Your task to perform on an android device: open app "Paramount+ | Peak Streaming" (install if not already installed) and enter user name: "fostered@yahoo.com" and password: "strong" Image 0: 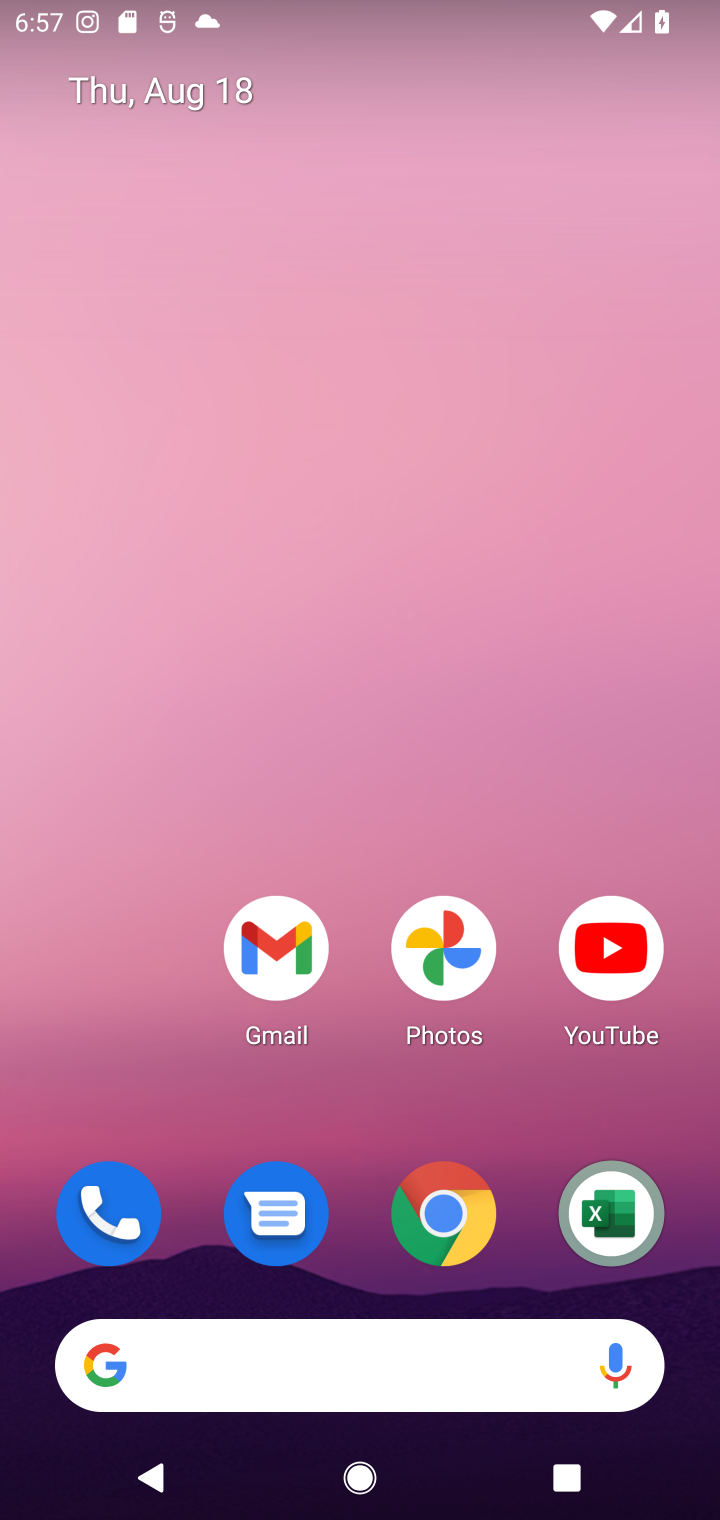
Step 0: drag from (354, 1089) to (413, 0)
Your task to perform on an android device: open app "Paramount+ | Peak Streaming" (install if not already installed) and enter user name: "fostered@yahoo.com" and password: "strong" Image 1: 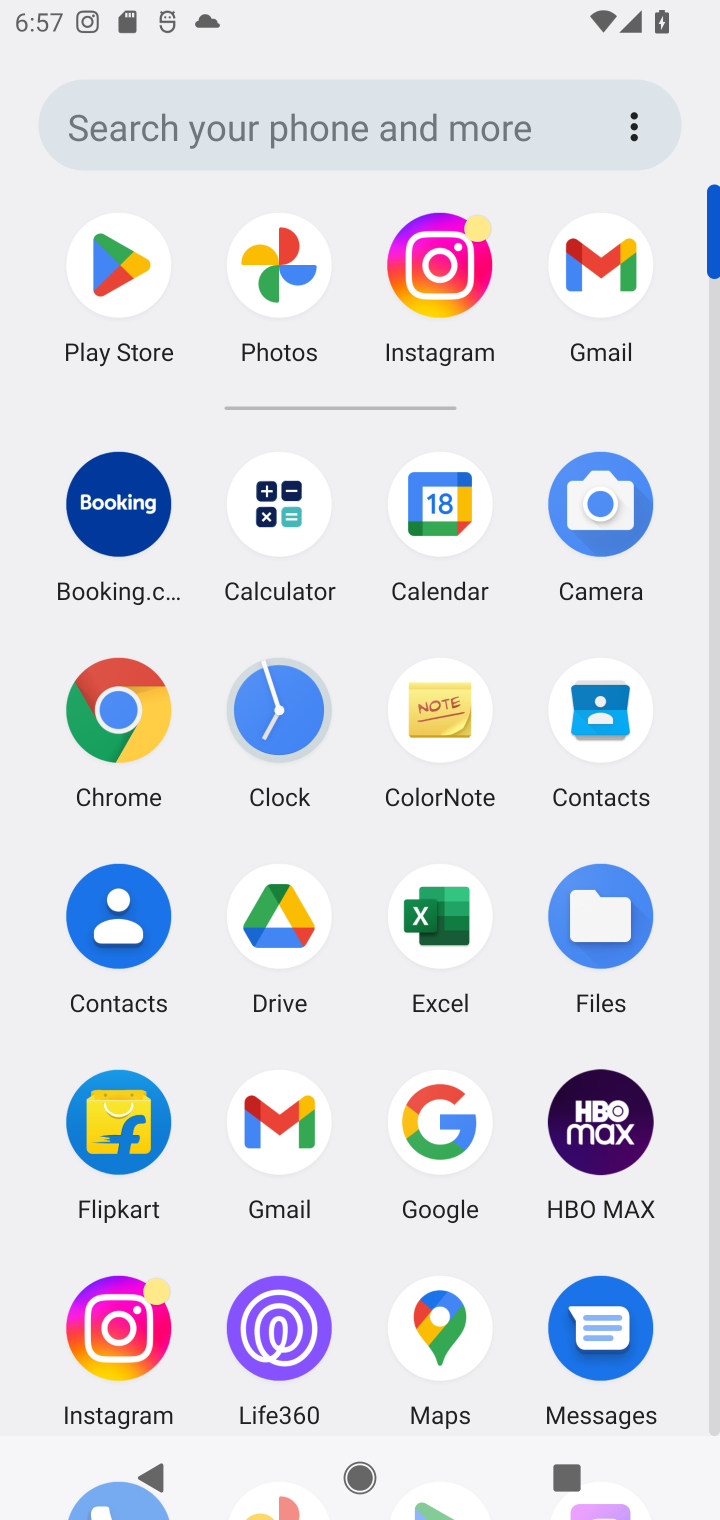
Step 1: click (117, 241)
Your task to perform on an android device: open app "Paramount+ | Peak Streaming" (install if not already installed) and enter user name: "fostered@yahoo.com" and password: "strong" Image 2: 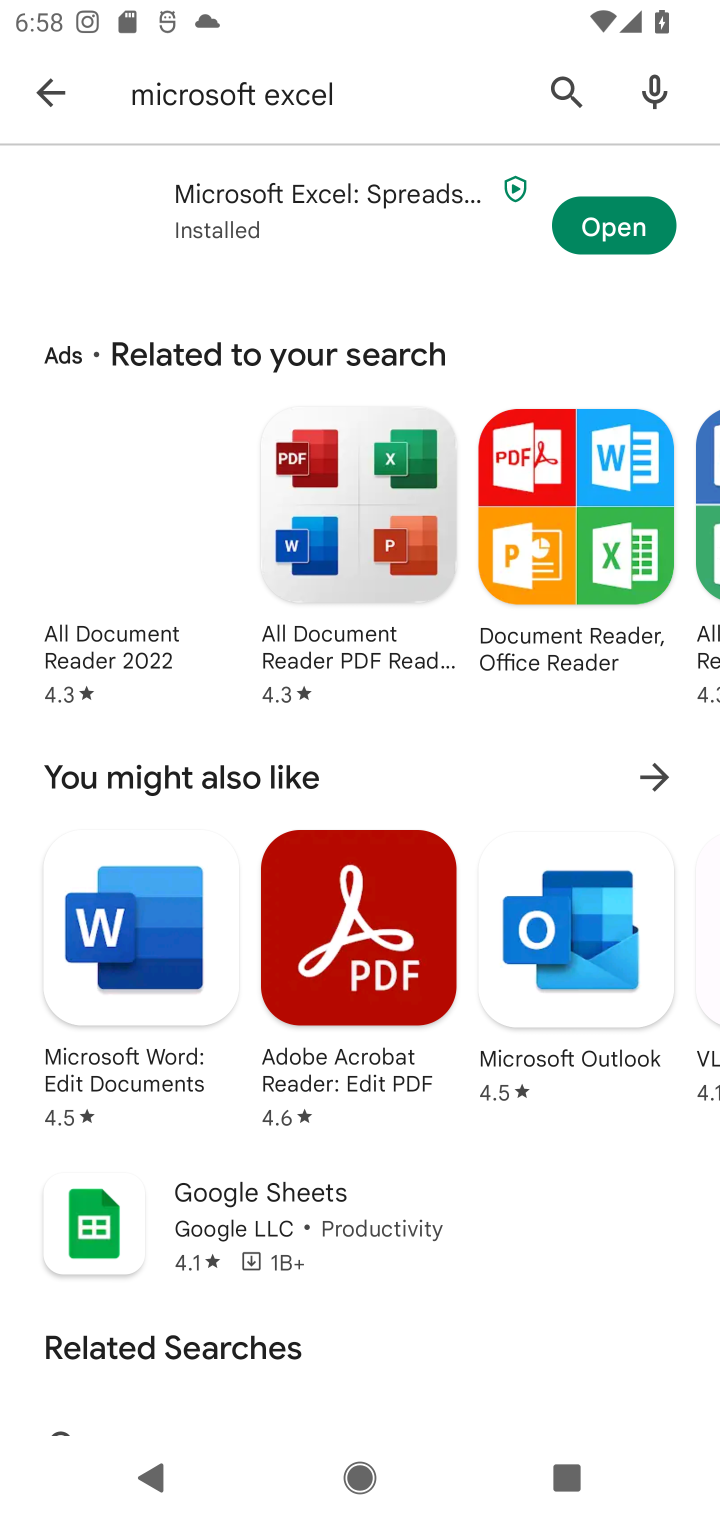
Step 2: click (549, 83)
Your task to perform on an android device: open app "Paramount+ | Peak Streaming" (install if not already installed) and enter user name: "fostered@yahoo.com" and password: "strong" Image 3: 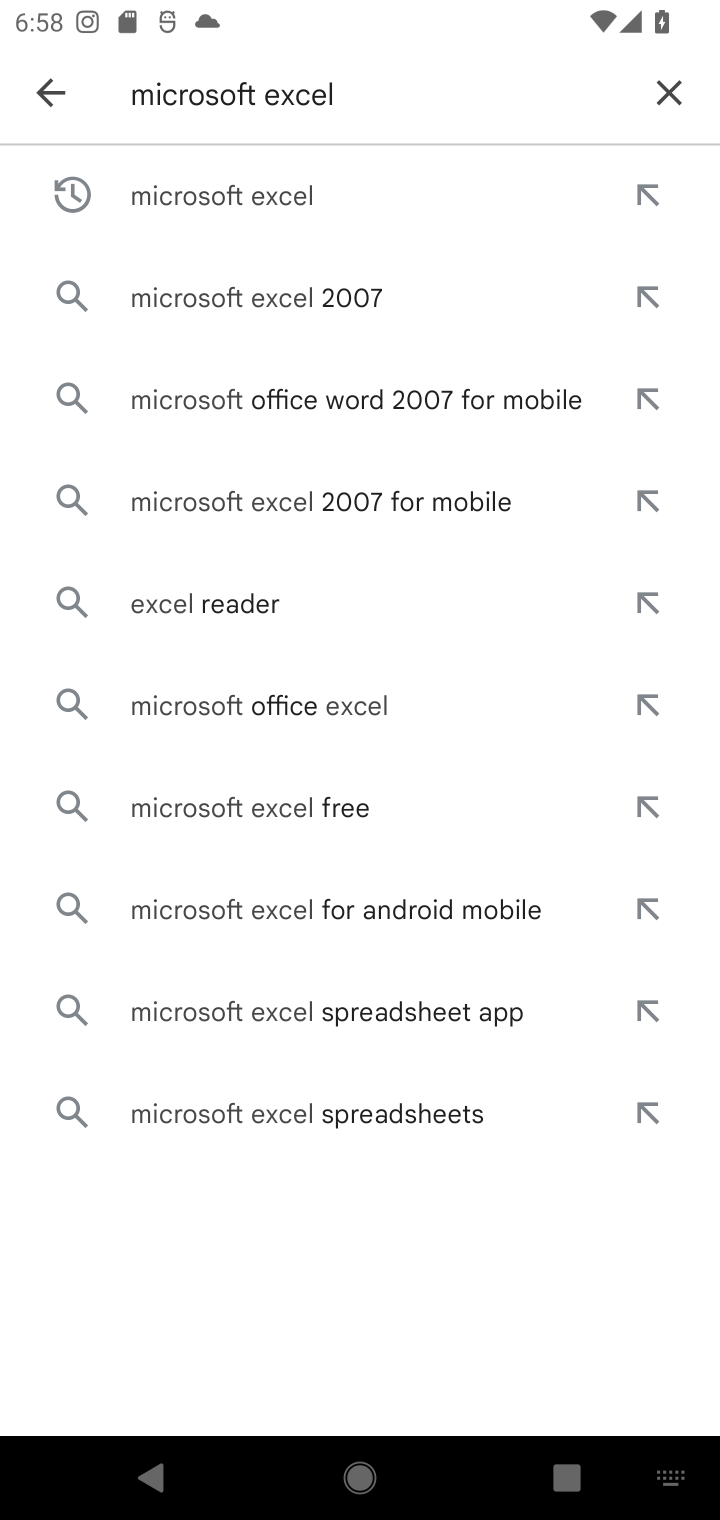
Step 3: click (656, 95)
Your task to perform on an android device: open app "Paramount+ | Peak Streaming" (install if not already installed) and enter user name: "fostered@yahoo.com" and password: "strong" Image 4: 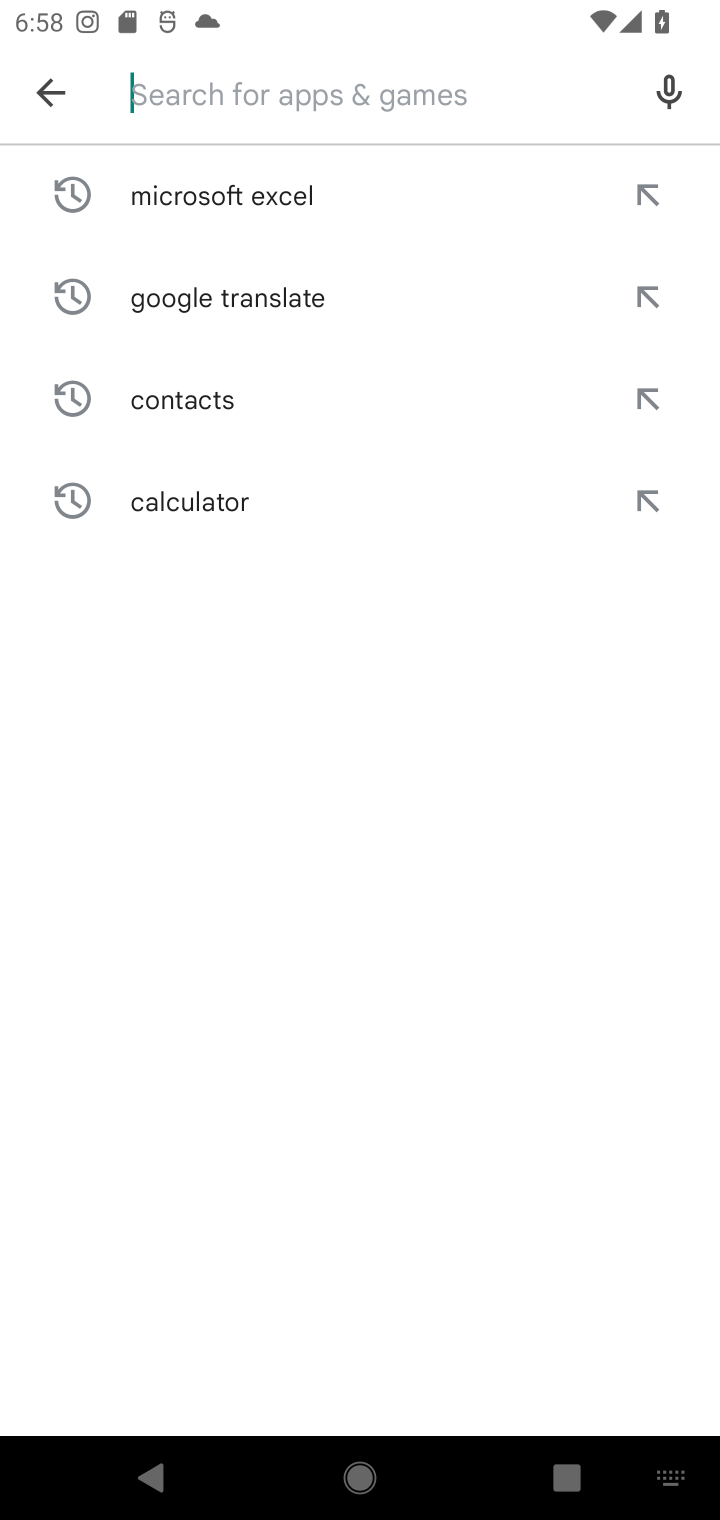
Step 4: type "Paramount+ | Peak Streaming"
Your task to perform on an android device: open app "Paramount+ | Peak Streaming" (install if not already installed) and enter user name: "fostered@yahoo.com" and password: "strong" Image 5: 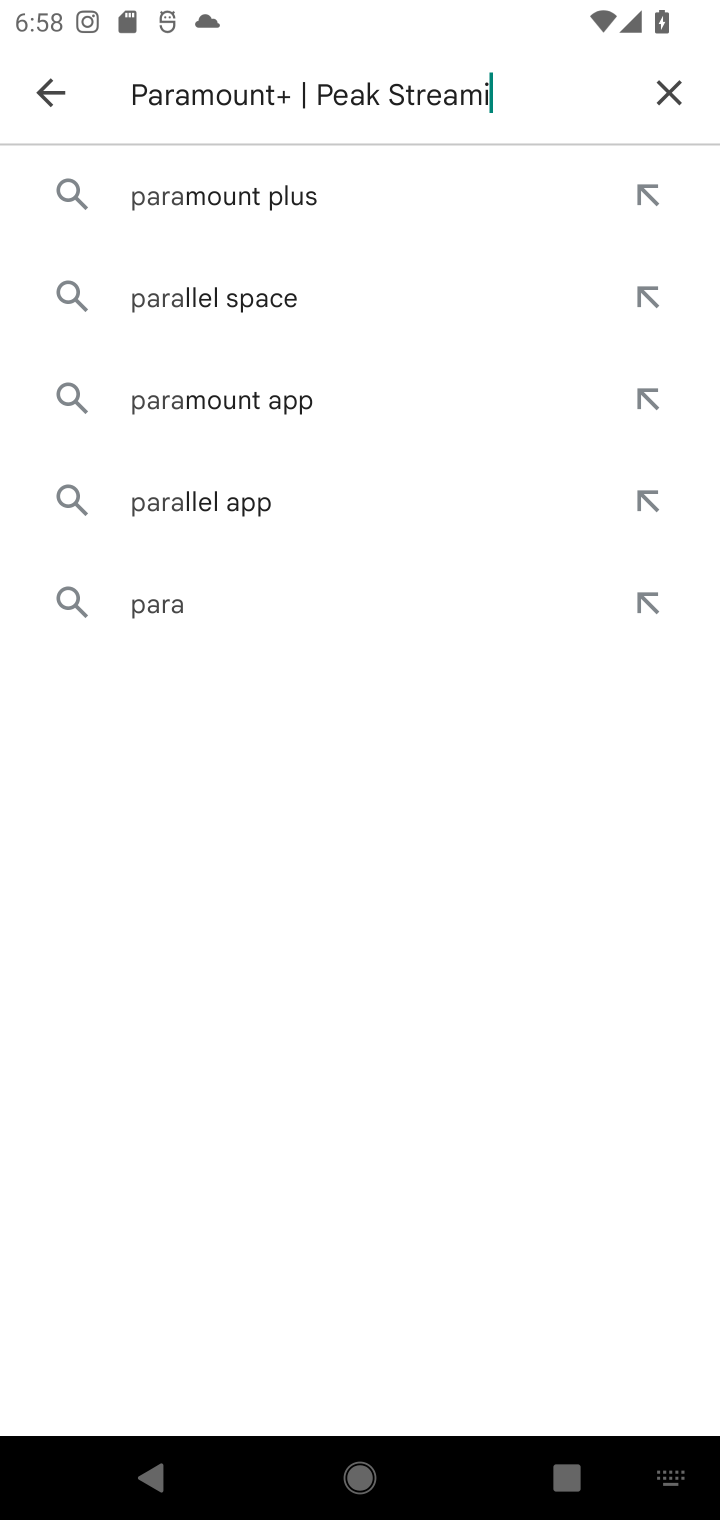
Step 5: type ""
Your task to perform on an android device: open app "Paramount+ | Peak Streaming" (install if not already installed) and enter user name: "fostered@yahoo.com" and password: "strong" Image 6: 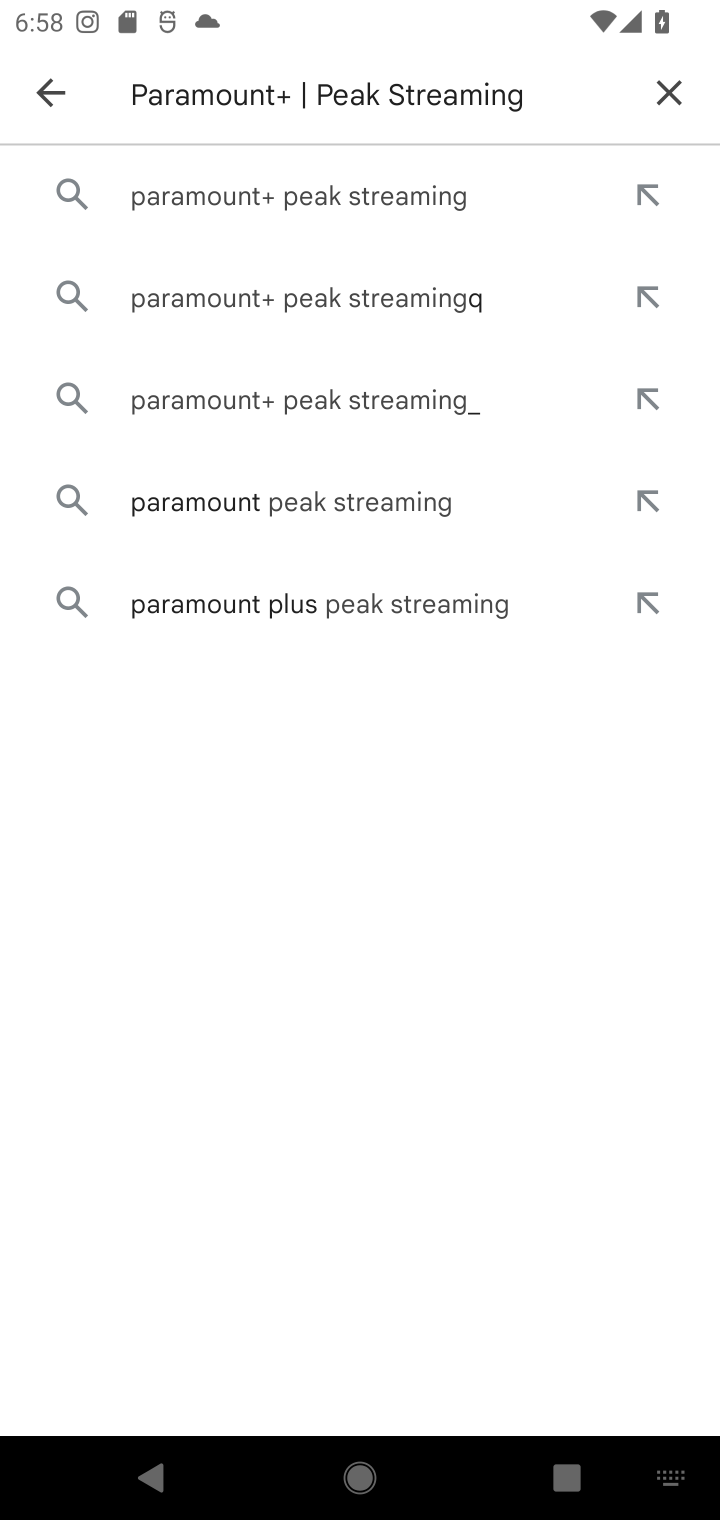
Step 6: click (395, 218)
Your task to perform on an android device: open app "Paramount+ | Peak Streaming" (install if not already installed) and enter user name: "fostered@yahoo.com" and password: "strong" Image 7: 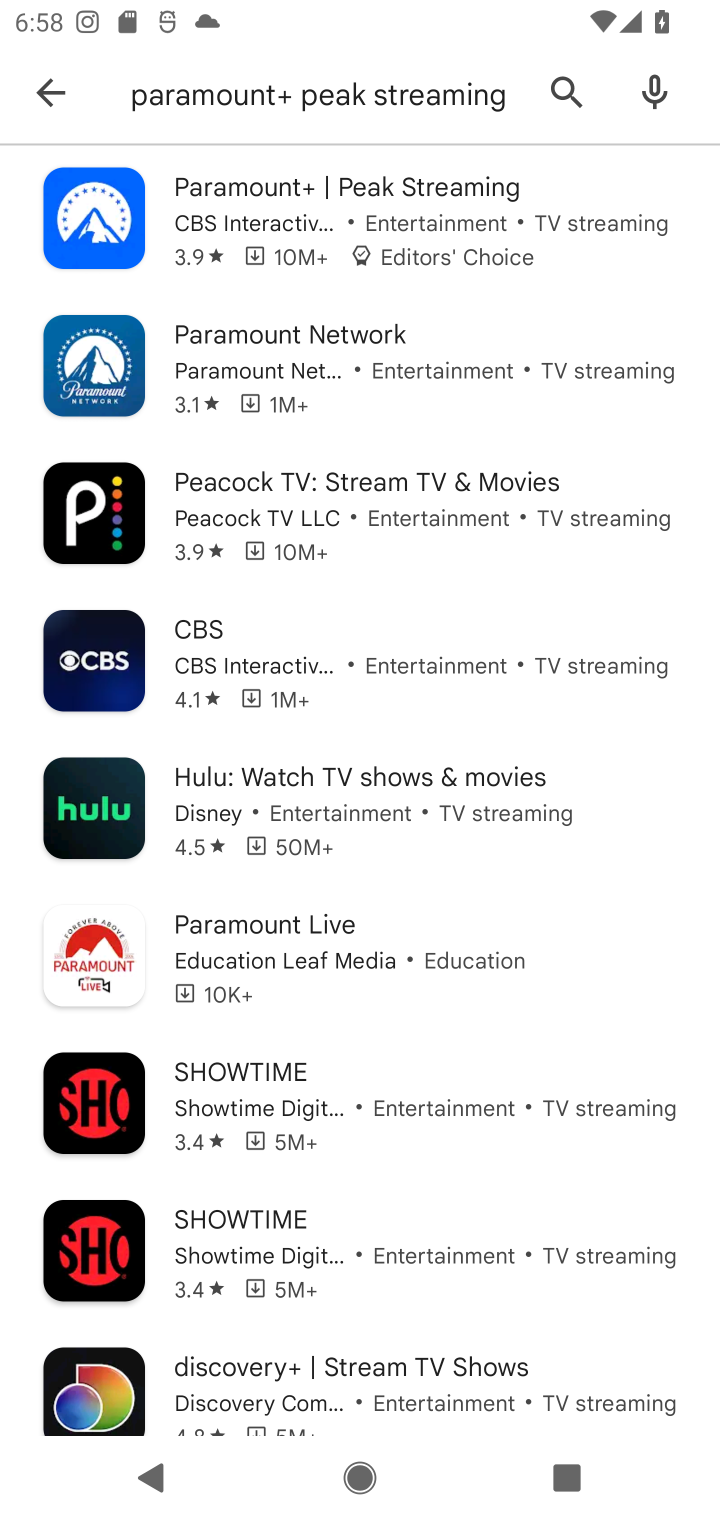
Step 7: click (274, 227)
Your task to perform on an android device: open app "Paramount+ | Peak Streaming" (install if not already installed) and enter user name: "fostered@yahoo.com" and password: "strong" Image 8: 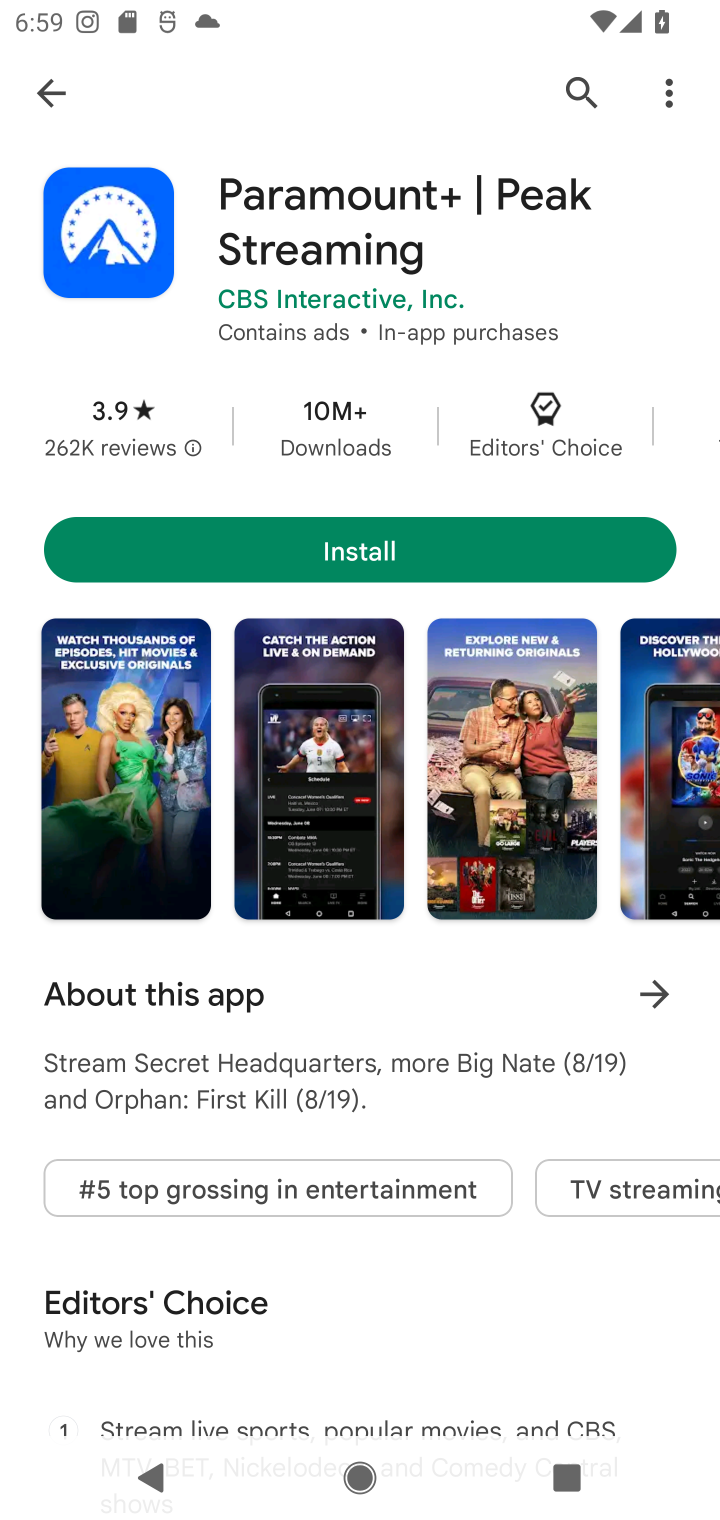
Step 8: click (408, 572)
Your task to perform on an android device: open app "Paramount+ | Peak Streaming" (install if not already installed) and enter user name: "fostered@yahoo.com" and password: "strong" Image 9: 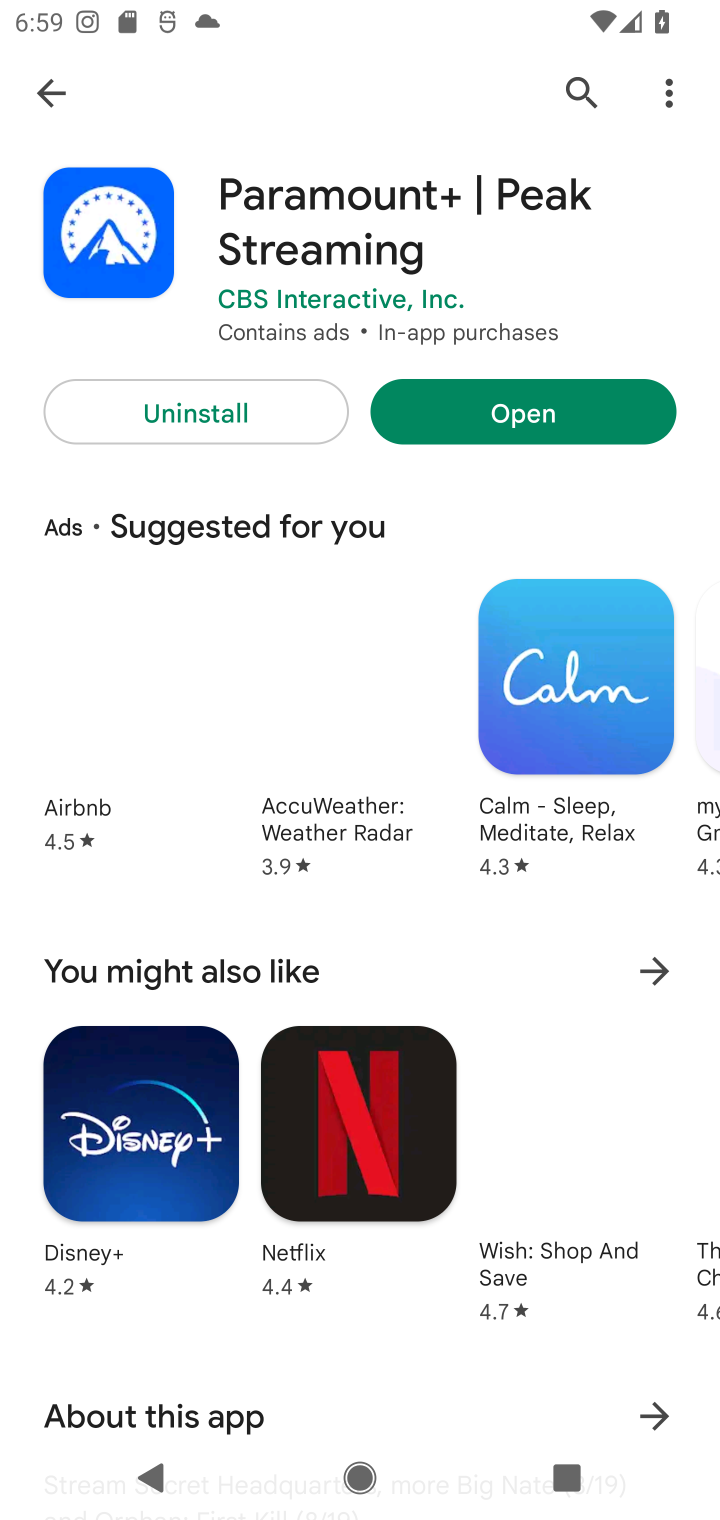
Step 9: click (534, 433)
Your task to perform on an android device: open app "Paramount+ | Peak Streaming" (install if not already installed) and enter user name: "fostered@yahoo.com" and password: "strong" Image 10: 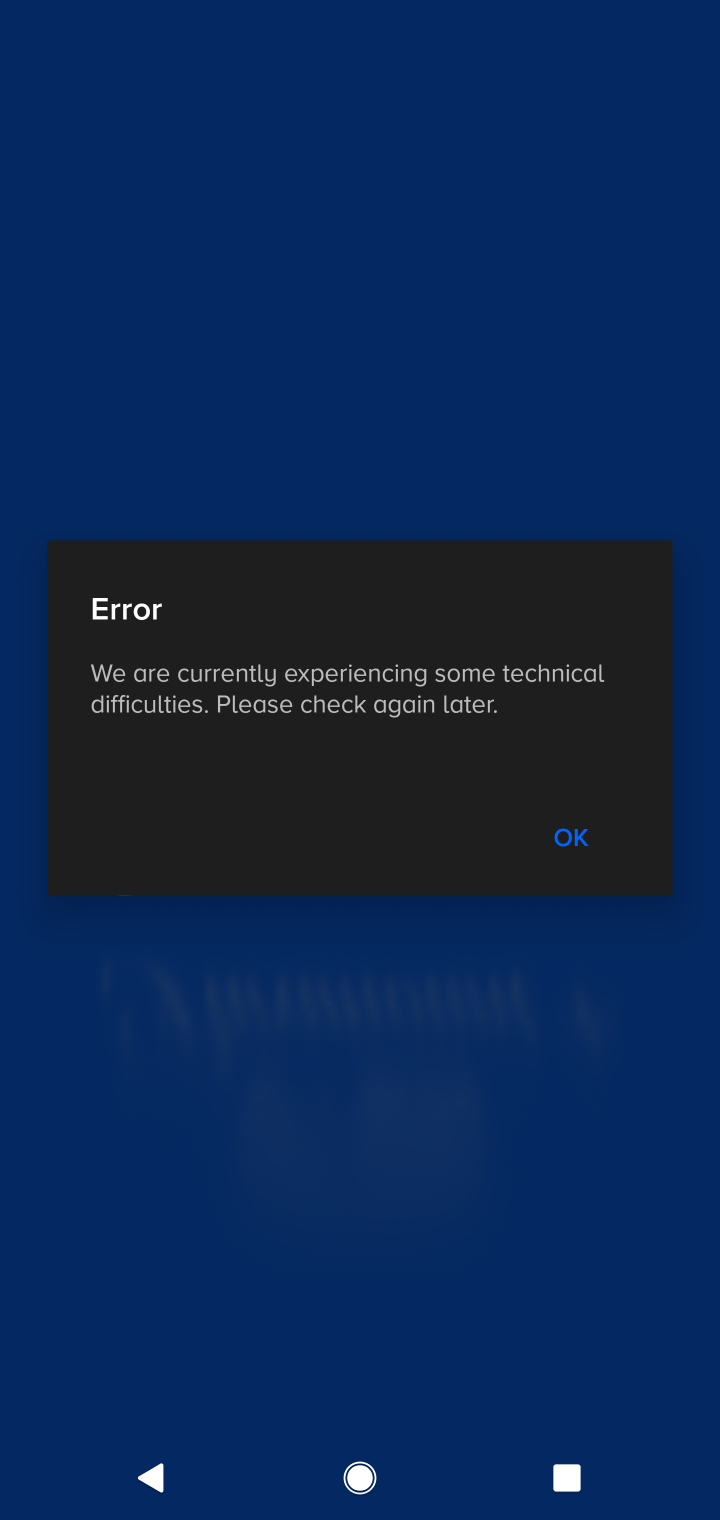
Step 10: click (579, 828)
Your task to perform on an android device: open app "Paramount+ | Peak Streaming" (install if not already installed) and enter user name: "fostered@yahoo.com" and password: "strong" Image 11: 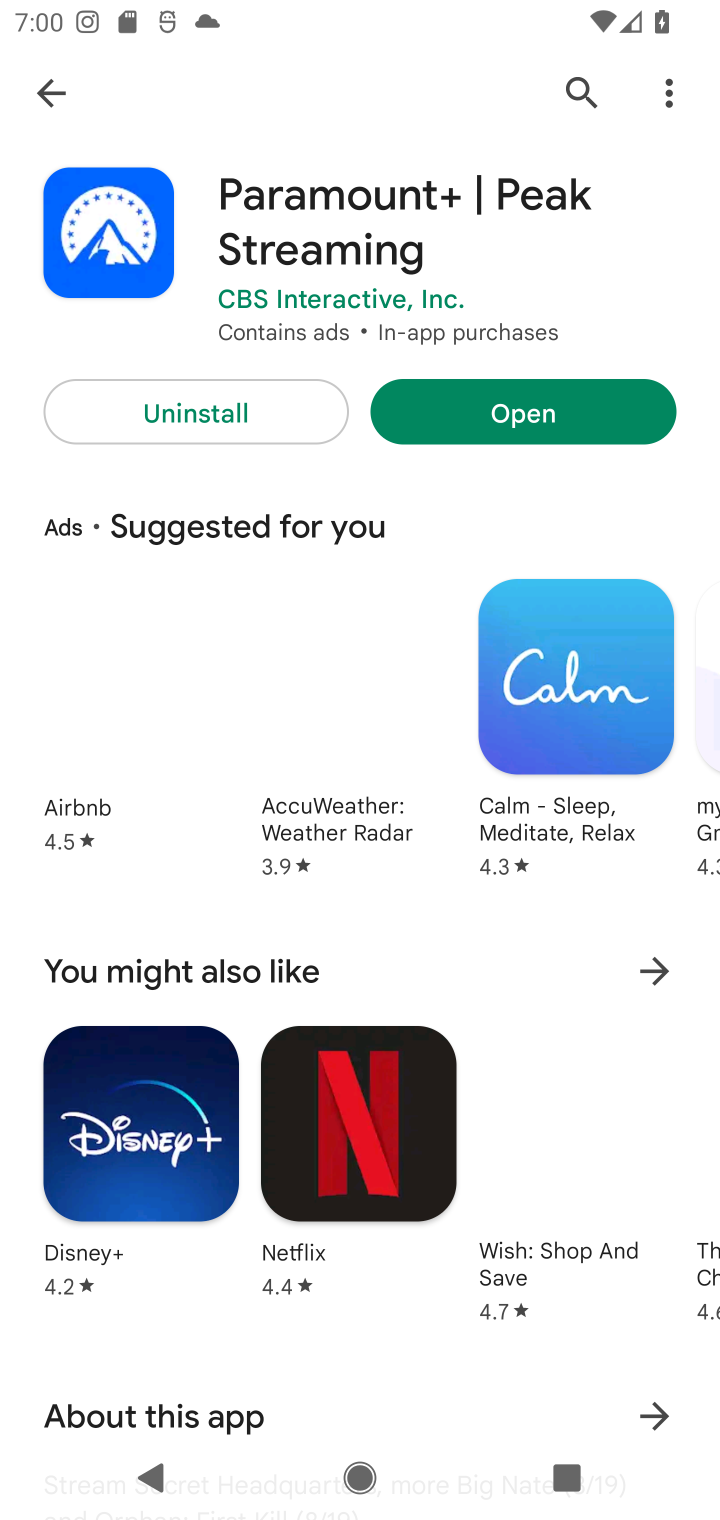
Step 11: click (61, 95)
Your task to perform on an android device: open app "Paramount+ | Peak Streaming" (install if not already installed) and enter user name: "fostered@yahoo.com" and password: "strong" Image 12: 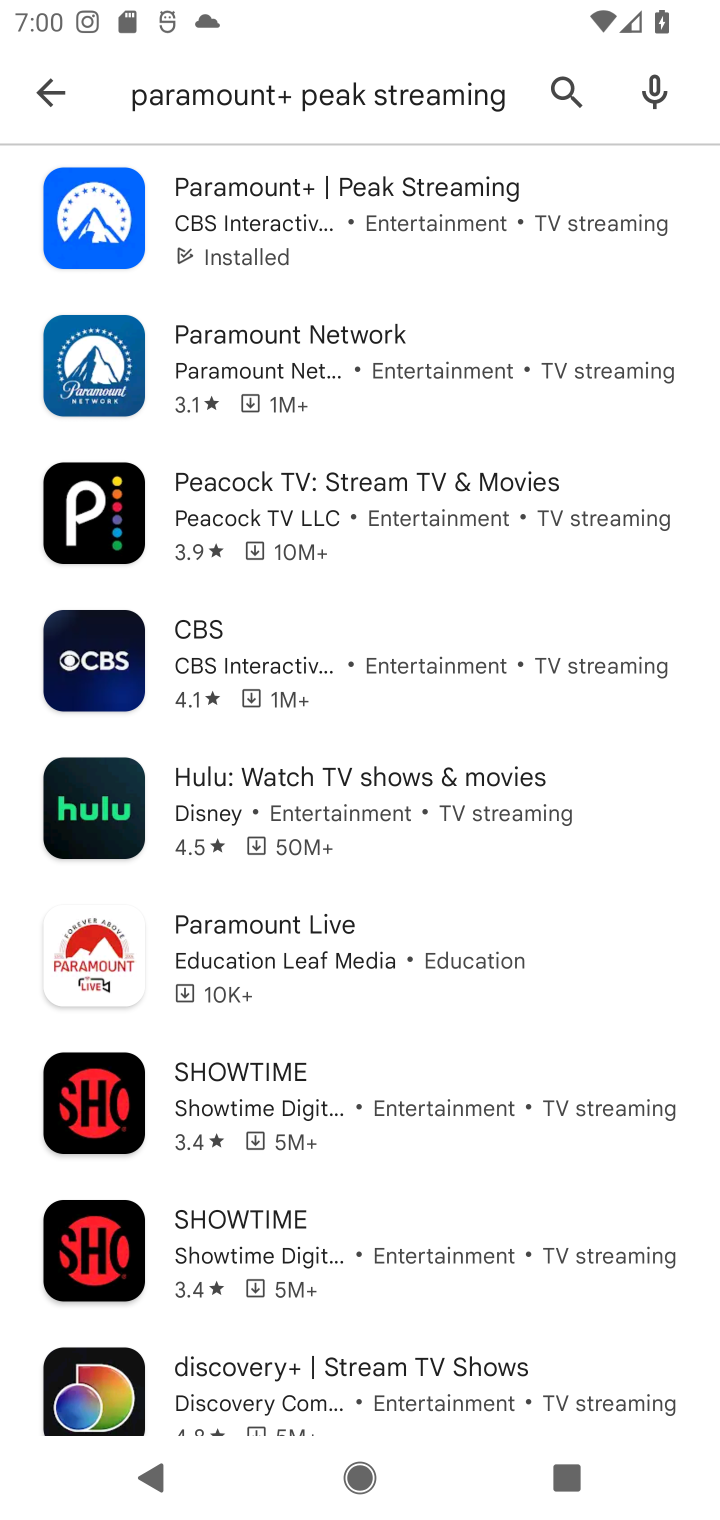
Step 12: click (566, 82)
Your task to perform on an android device: open app "Paramount+ | Peak Streaming" (install if not already installed) and enter user name: "fostered@yahoo.com" and password: "strong" Image 13: 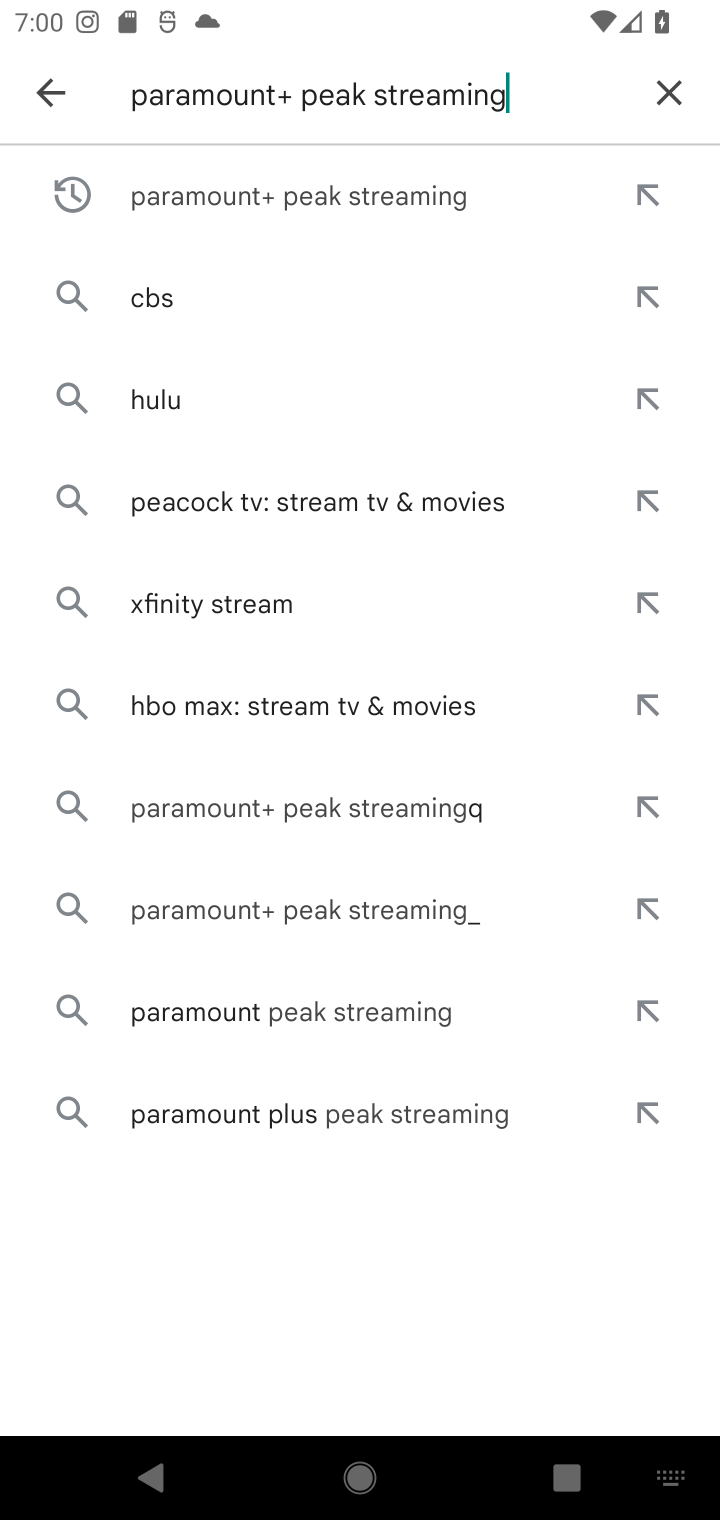
Step 13: task complete